Your task to perform on an android device: open chrome and create a bookmark for the current page Image 0: 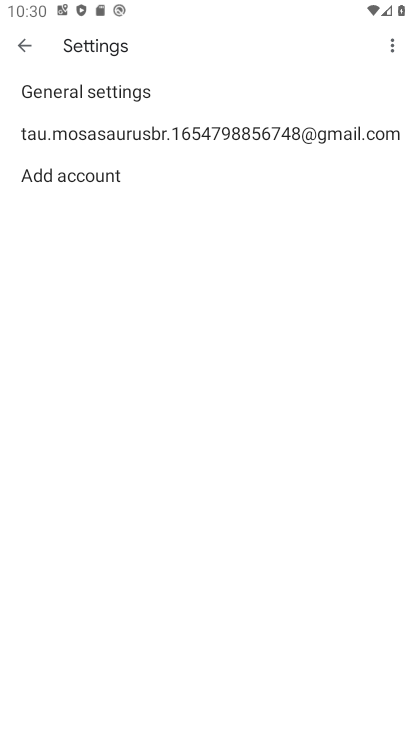
Step 0: press home button
Your task to perform on an android device: open chrome and create a bookmark for the current page Image 1: 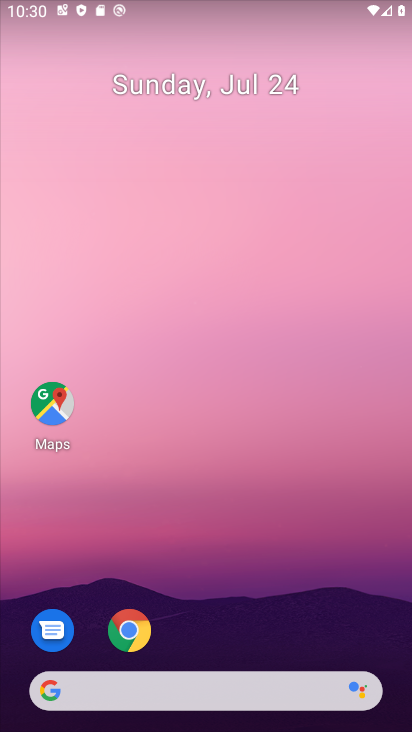
Step 1: click (150, 628)
Your task to perform on an android device: open chrome and create a bookmark for the current page Image 2: 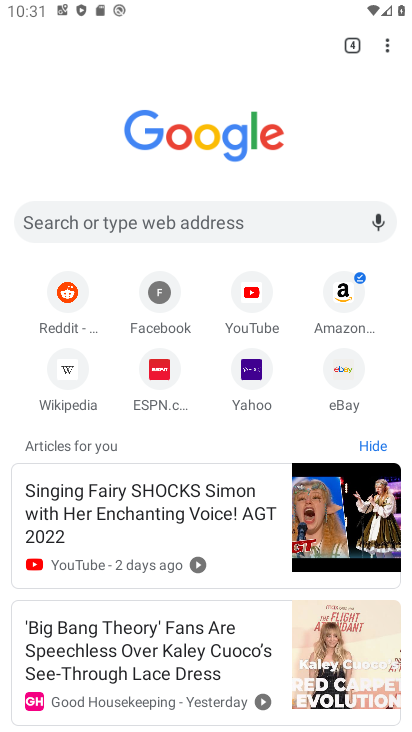
Step 2: drag from (181, 650) to (191, 157)
Your task to perform on an android device: open chrome and create a bookmark for the current page Image 3: 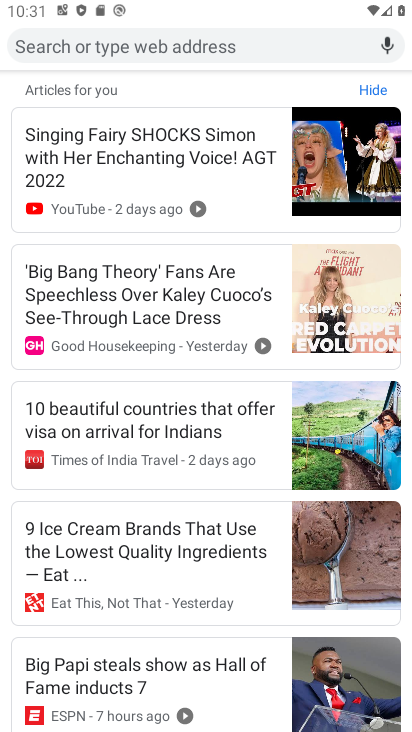
Step 3: click (165, 571)
Your task to perform on an android device: open chrome and create a bookmark for the current page Image 4: 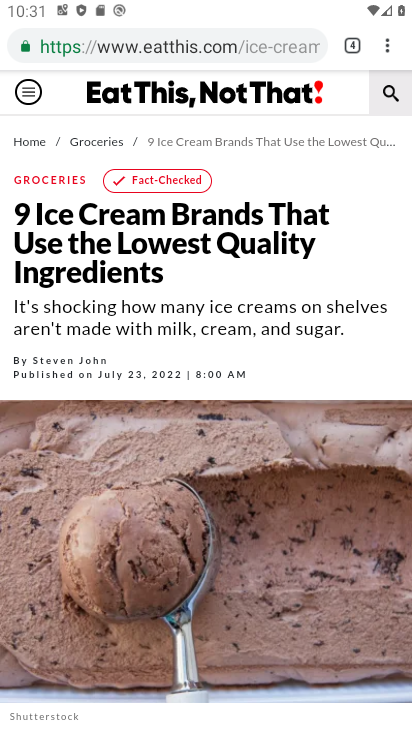
Step 4: click (375, 48)
Your task to perform on an android device: open chrome and create a bookmark for the current page Image 5: 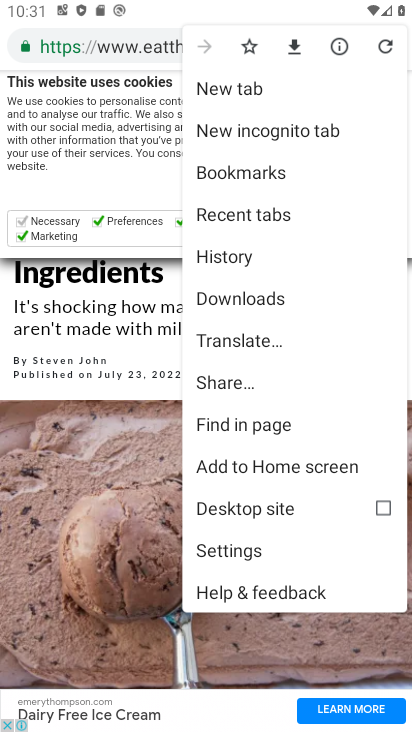
Step 5: click (252, 43)
Your task to perform on an android device: open chrome and create a bookmark for the current page Image 6: 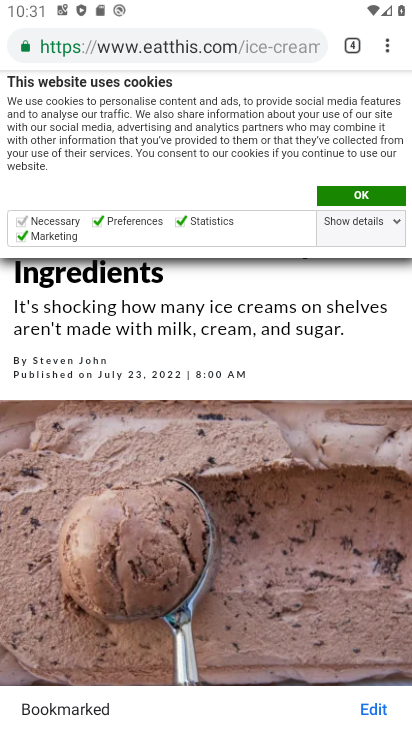
Step 6: task complete